Your task to perform on an android device: change the clock style Image 0: 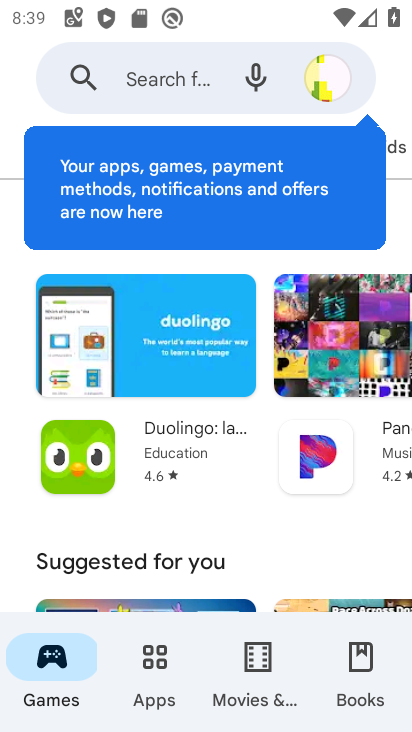
Step 0: press home button
Your task to perform on an android device: change the clock style Image 1: 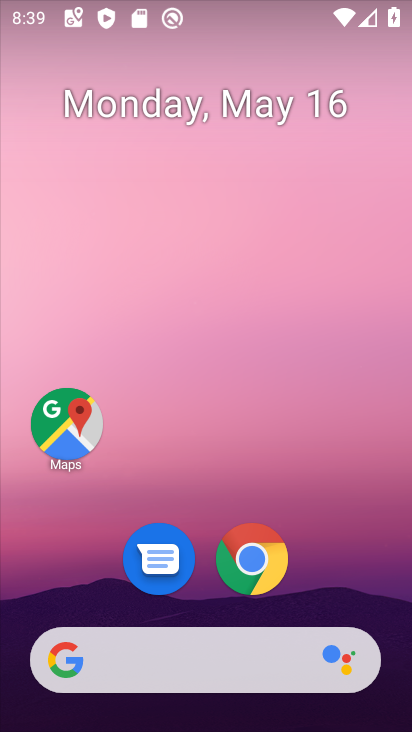
Step 1: drag from (314, 592) to (307, 55)
Your task to perform on an android device: change the clock style Image 2: 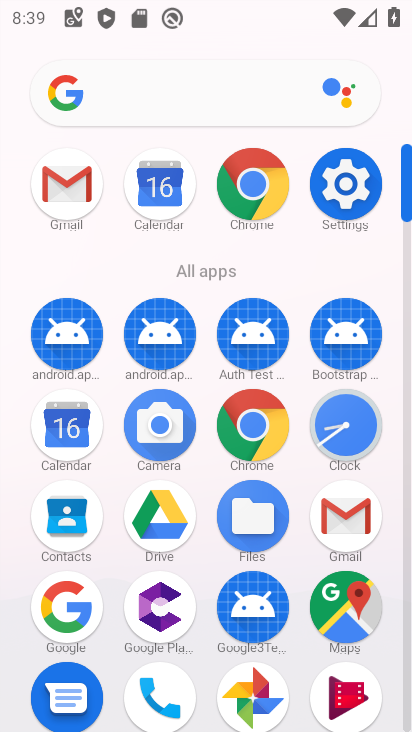
Step 2: click (338, 409)
Your task to perform on an android device: change the clock style Image 3: 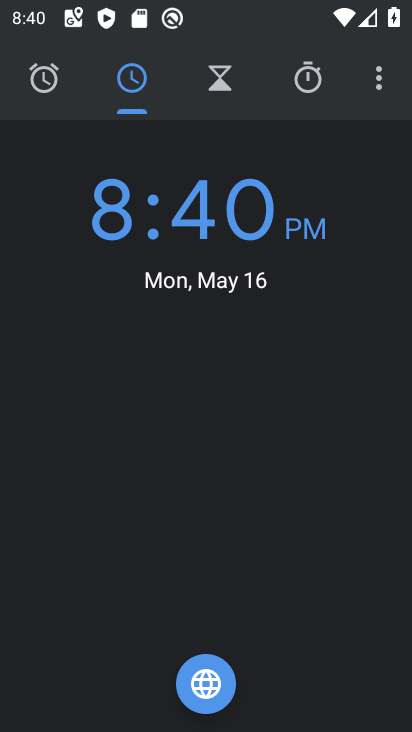
Step 3: click (381, 101)
Your task to perform on an android device: change the clock style Image 4: 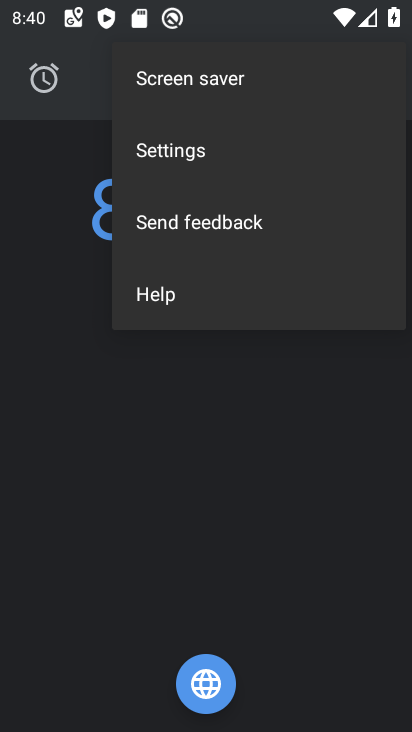
Step 4: click (241, 150)
Your task to perform on an android device: change the clock style Image 5: 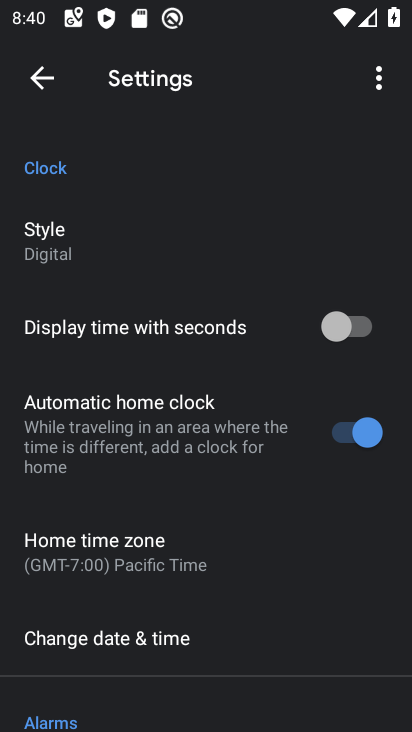
Step 5: click (83, 236)
Your task to perform on an android device: change the clock style Image 6: 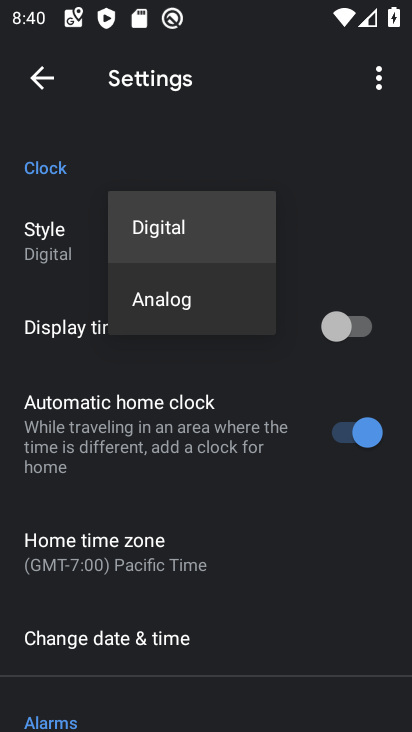
Step 6: click (159, 308)
Your task to perform on an android device: change the clock style Image 7: 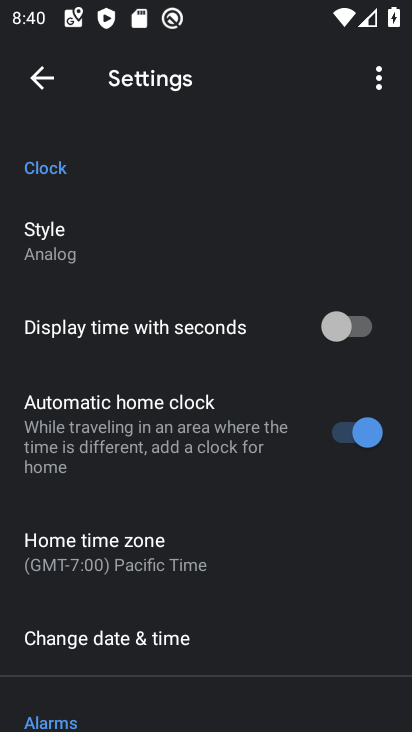
Step 7: task complete